Your task to perform on an android device: Open the map Image 0: 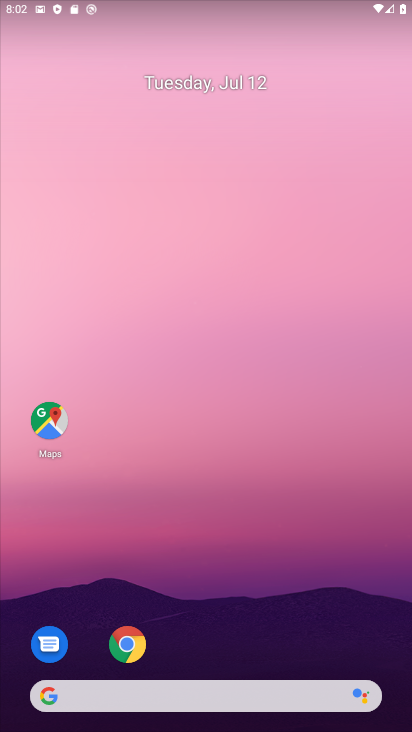
Step 0: click (50, 423)
Your task to perform on an android device: Open the map Image 1: 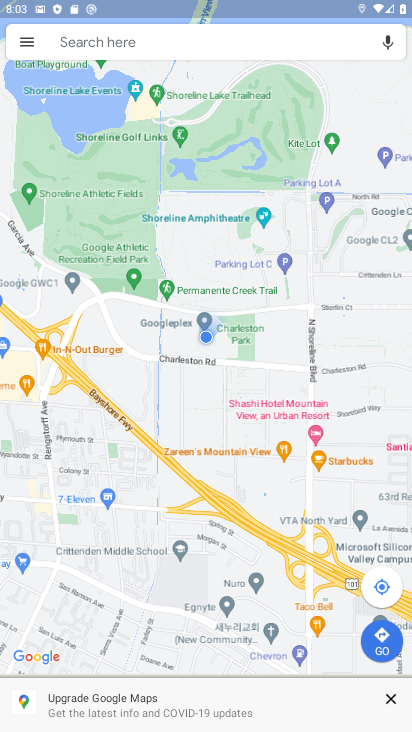
Step 1: task complete